Your task to perform on an android device: turn off smart reply in the gmail app Image 0: 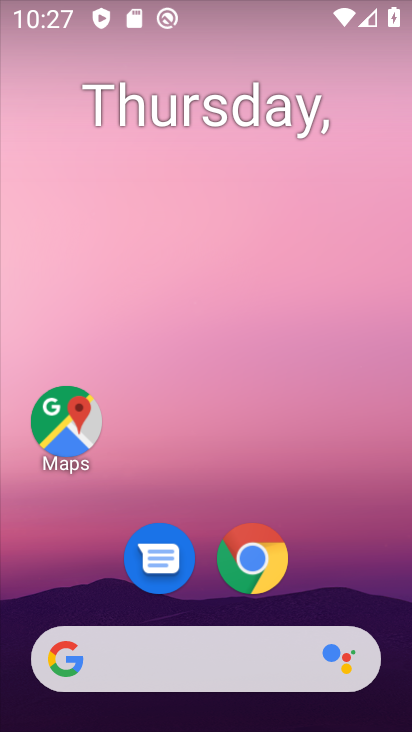
Step 0: drag from (342, 580) to (387, 89)
Your task to perform on an android device: turn off smart reply in the gmail app Image 1: 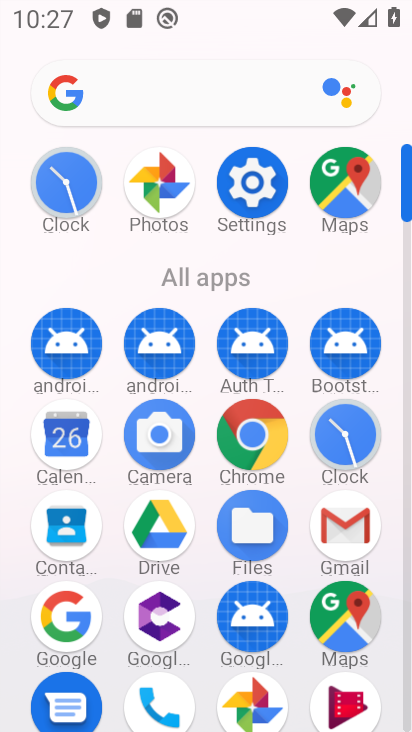
Step 1: click (341, 528)
Your task to perform on an android device: turn off smart reply in the gmail app Image 2: 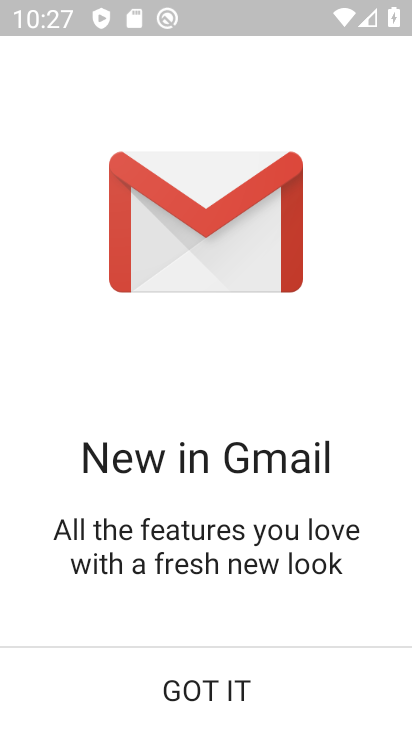
Step 2: click (172, 688)
Your task to perform on an android device: turn off smart reply in the gmail app Image 3: 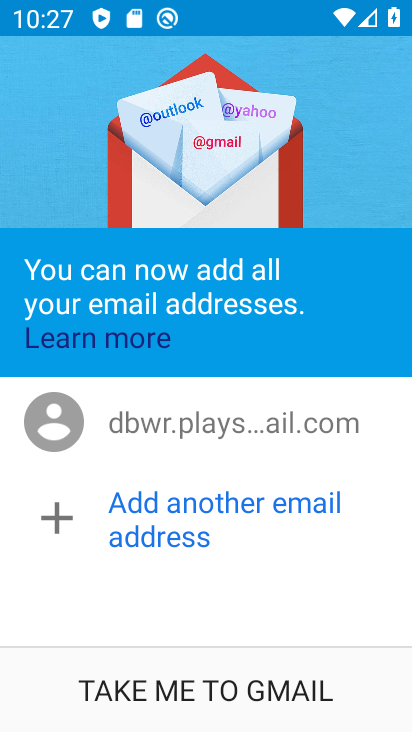
Step 3: click (174, 688)
Your task to perform on an android device: turn off smart reply in the gmail app Image 4: 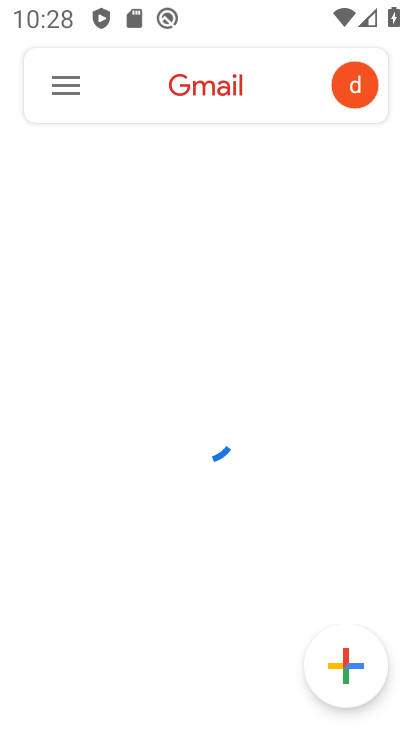
Step 4: click (67, 90)
Your task to perform on an android device: turn off smart reply in the gmail app Image 5: 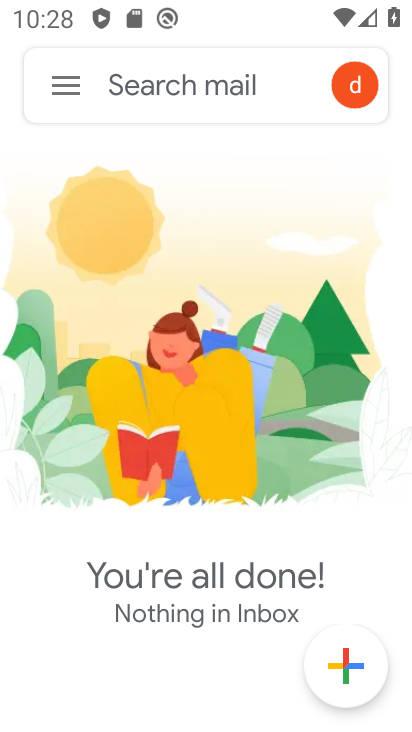
Step 5: click (68, 88)
Your task to perform on an android device: turn off smart reply in the gmail app Image 6: 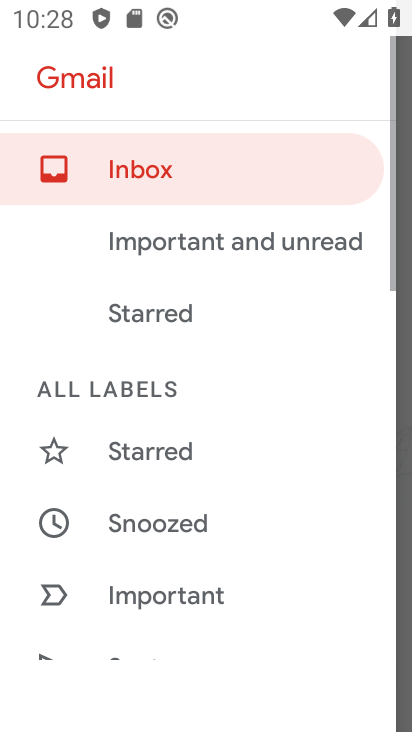
Step 6: drag from (224, 587) to (313, 86)
Your task to perform on an android device: turn off smart reply in the gmail app Image 7: 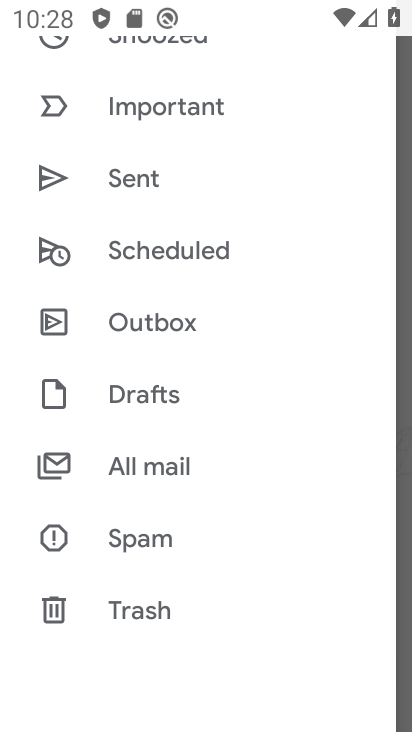
Step 7: drag from (276, 560) to (278, 179)
Your task to perform on an android device: turn off smart reply in the gmail app Image 8: 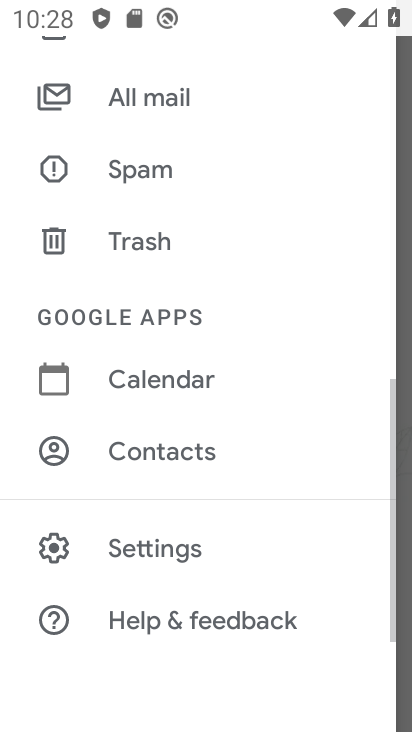
Step 8: click (138, 554)
Your task to perform on an android device: turn off smart reply in the gmail app Image 9: 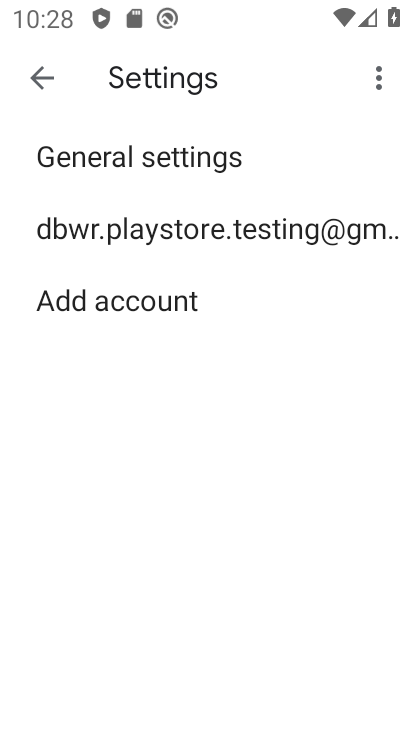
Step 9: click (191, 195)
Your task to perform on an android device: turn off smart reply in the gmail app Image 10: 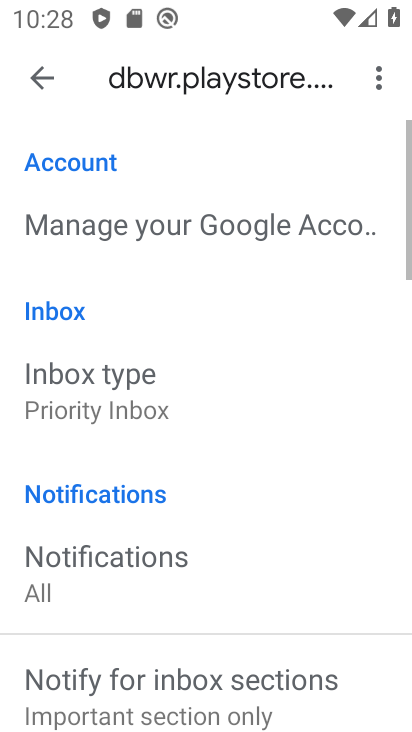
Step 10: drag from (305, 713) to (304, 159)
Your task to perform on an android device: turn off smart reply in the gmail app Image 11: 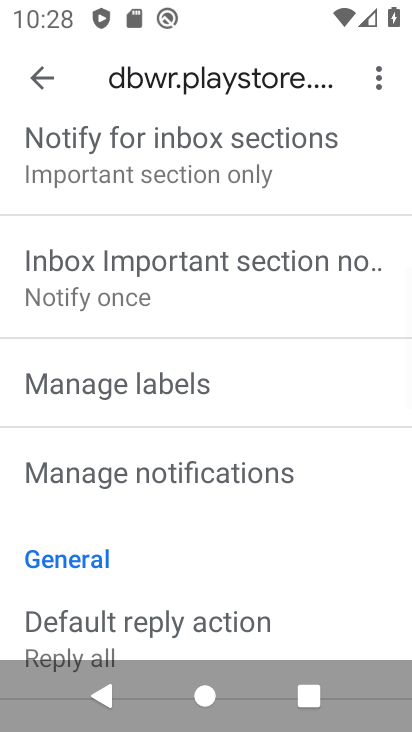
Step 11: drag from (269, 611) to (301, 159)
Your task to perform on an android device: turn off smart reply in the gmail app Image 12: 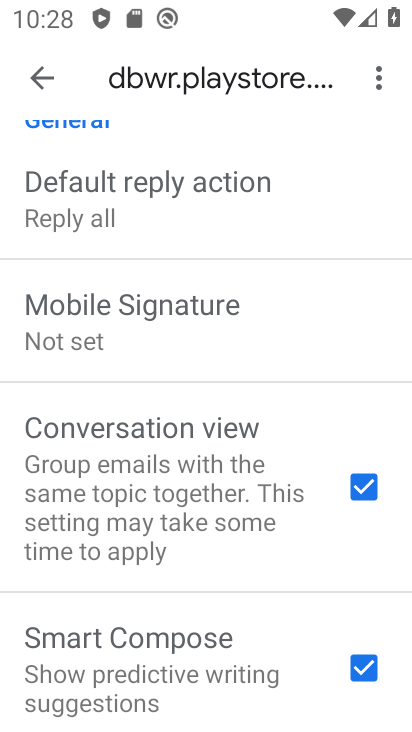
Step 12: click (368, 667)
Your task to perform on an android device: turn off smart reply in the gmail app Image 13: 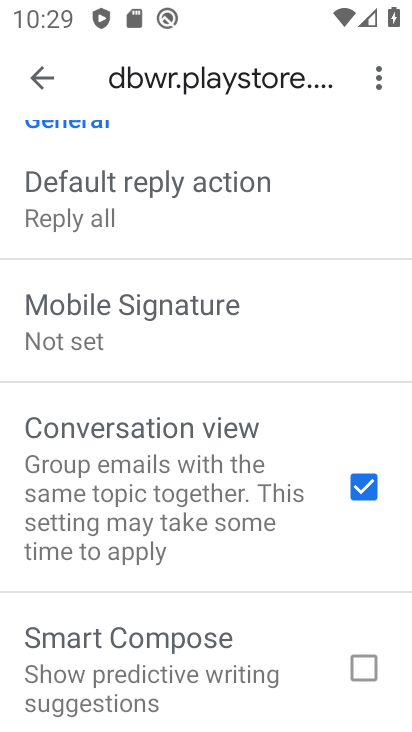
Step 13: task complete